Your task to perform on an android device: refresh tabs in the chrome app Image 0: 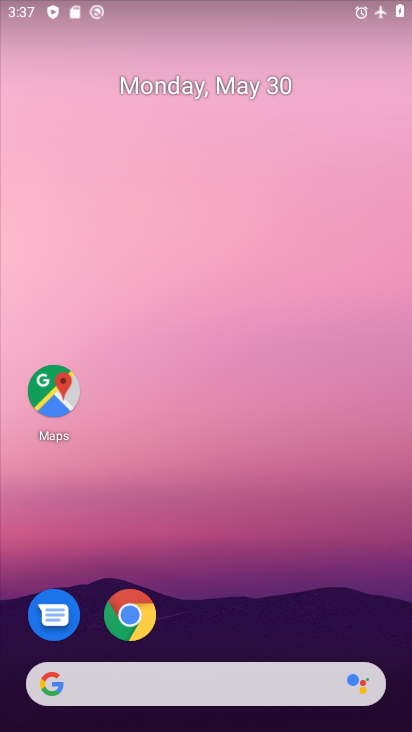
Step 0: click (135, 623)
Your task to perform on an android device: refresh tabs in the chrome app Image 1: 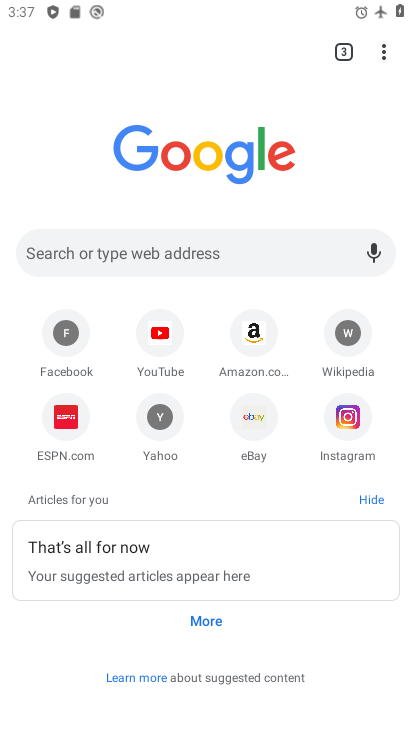
Step 1: click (382, 56)
Your task to perform on an android device: refresh tabs in the chrome app Image 2: 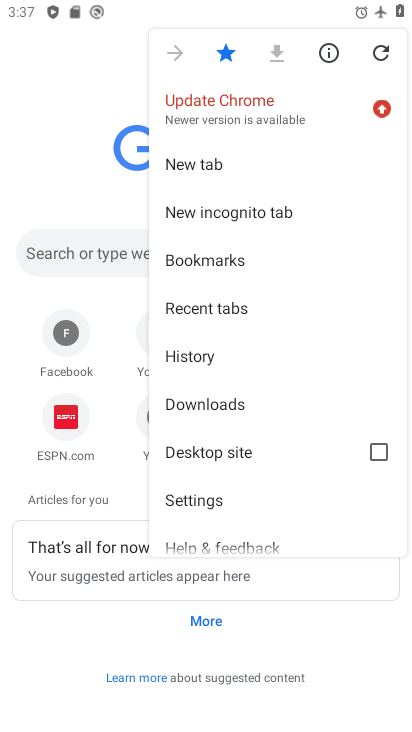
Step 2: click (376, 51)
Your task to perform on an android device: refresh tabs in the chrome app Image 3: 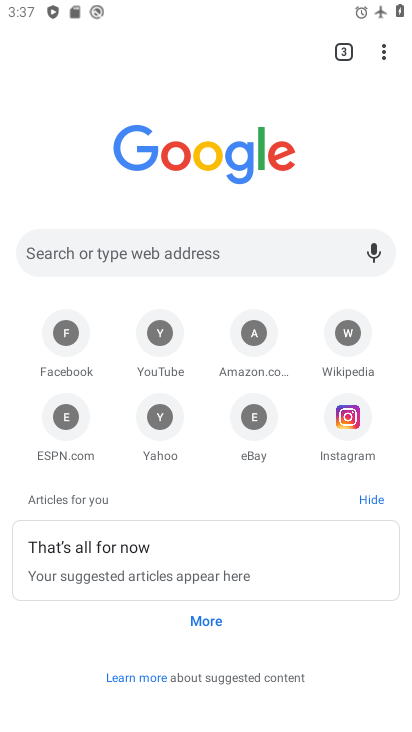
Step 3: task complete